Your task to perform on an android device: toggle notification dots Image 0: 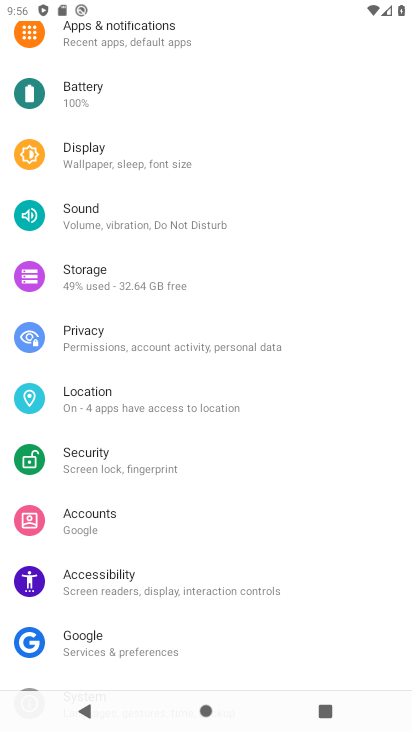
Step 0: click (167, 28)
Your task to perform on an android device: toggle notification dots Image 1: 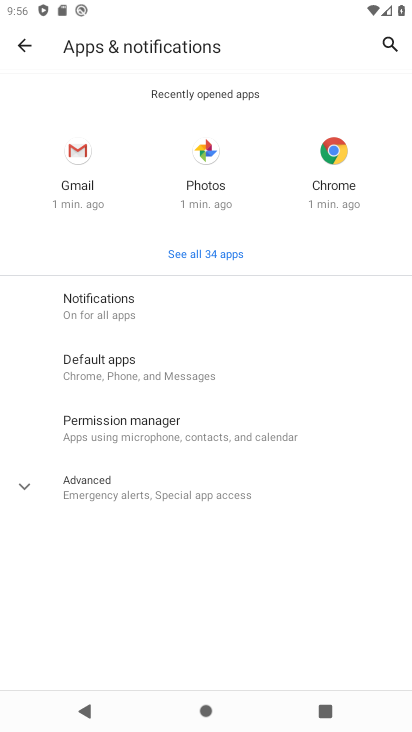
Step 1: click (104, 308)
Your task to perform on an android device: toggle notification dots Image 2: 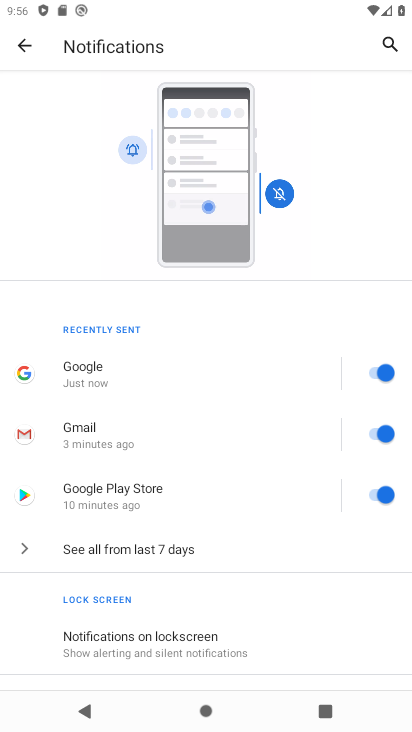
Step 2: drag from (139, 639) to (130, 256)
Your task to perform on an android device: toggle notification dots Image 3: 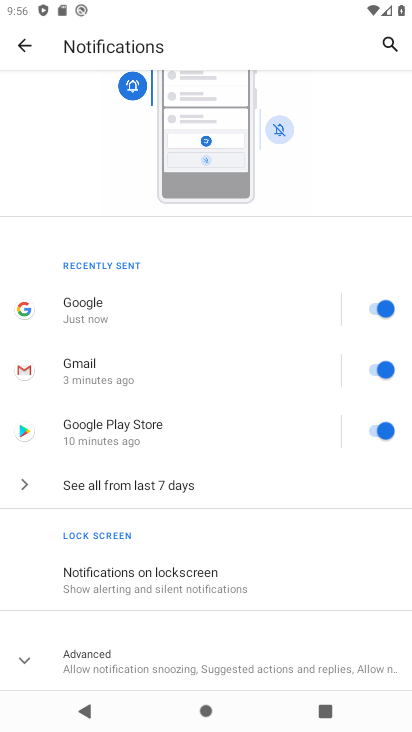
Step 3: click (122, 658)
Your task to perform on an android device: toggle notification dots Image 4: 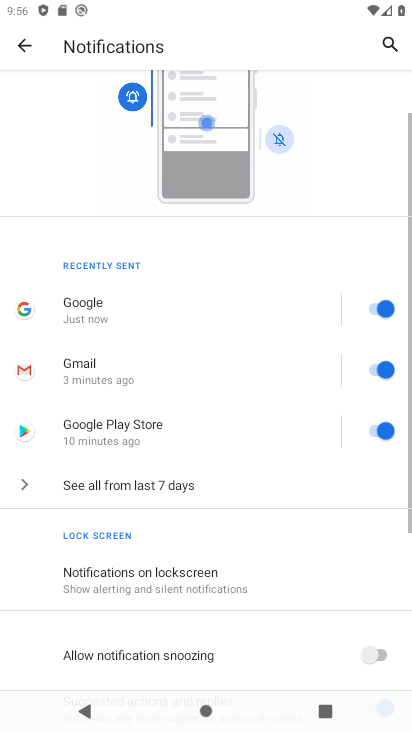
Step 4: drag from (119, 639) to (116, 311)
Your task to perform on an android device: toggle notification dots Image 5: 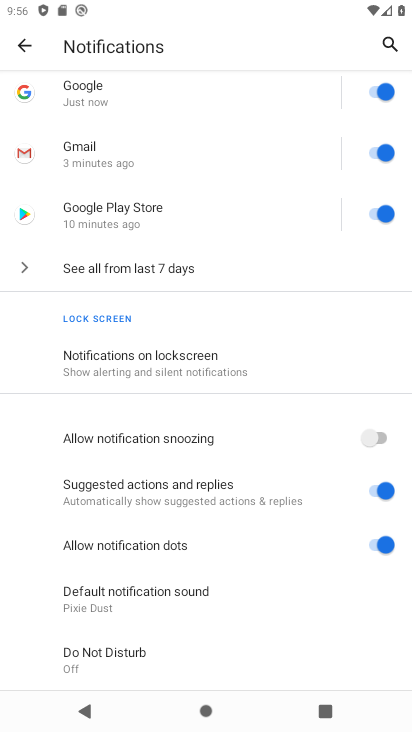
Step 5: click (375, 543)
Your task to perform on an android device: toggle notification dots Image 6: 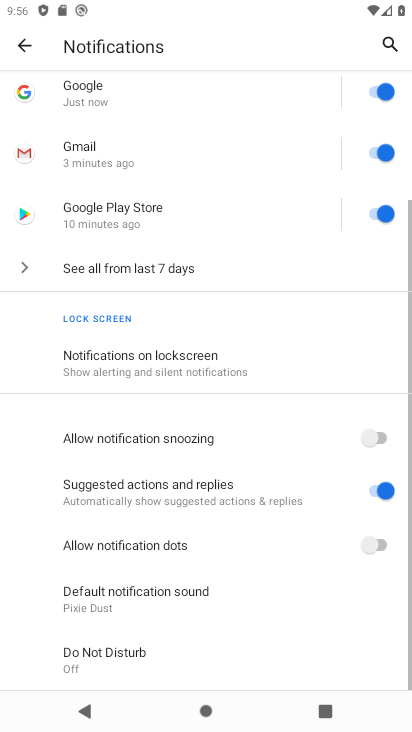
Step 6: task complete